Your task to perform on an android device: delete location history Image 0: 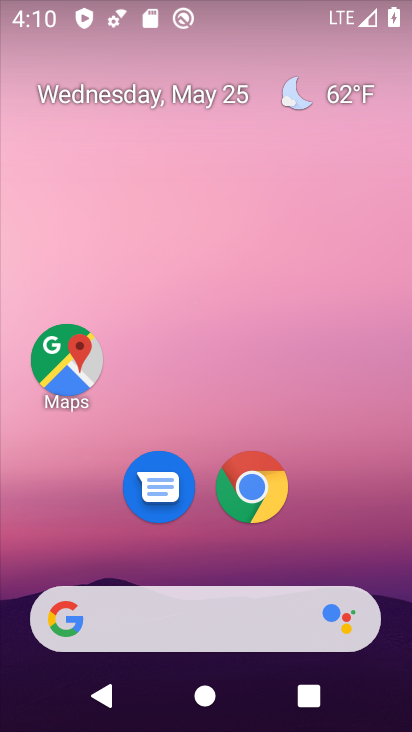
Step 0: drag from (351, 545) to (241, 3)
Your task to perform on an android device: delete location history Image 1: 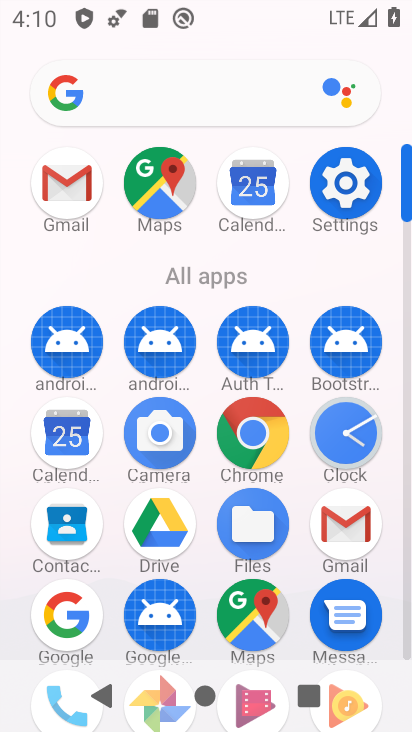
Step 1: click (171, 188)
Your task to perform on an android device: delete location history Image 2: 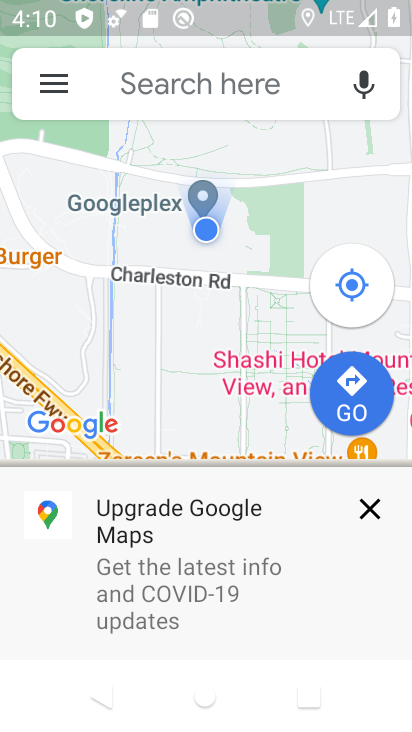
Step 2: click (86, 74)
Your task to perform on an android device: delete location history Image 3: 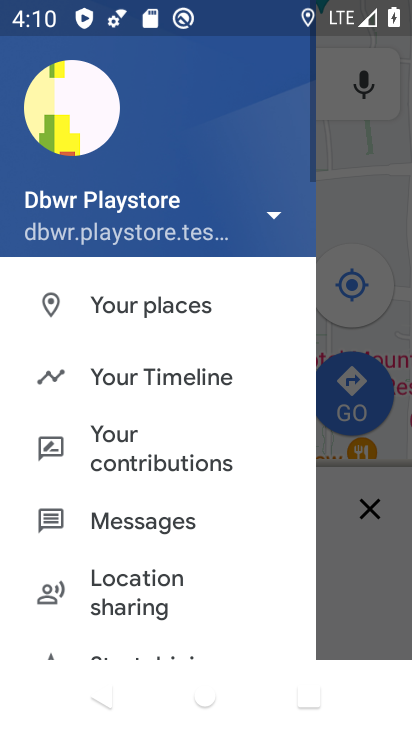
Step 3: drag from (199, 605) to (188, 250)
Your task to perform on an android device: delete location history Image 4: 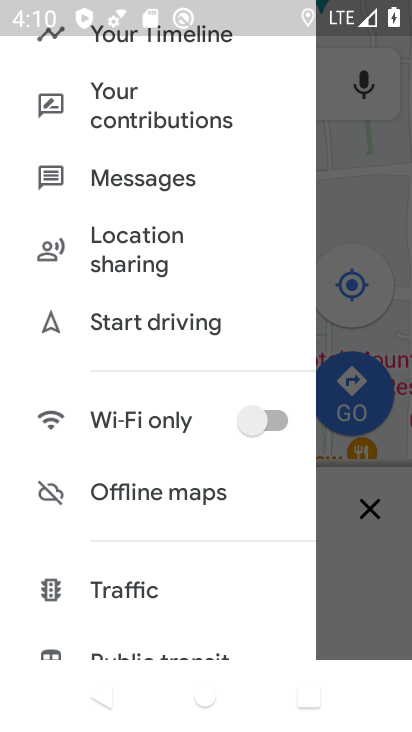
Step 4: drag from (190, 174) to (161, 438)
Your task to perform on an android device: delete location history Image 5: 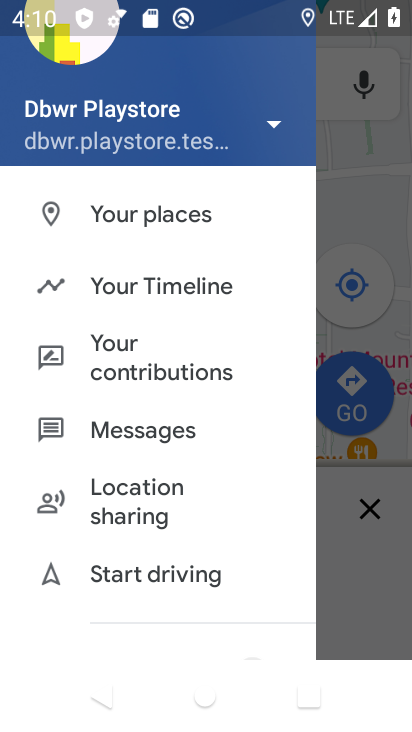
Step 5: click (156, 284)
Your task to perform on an android device: delete location history Image 6: 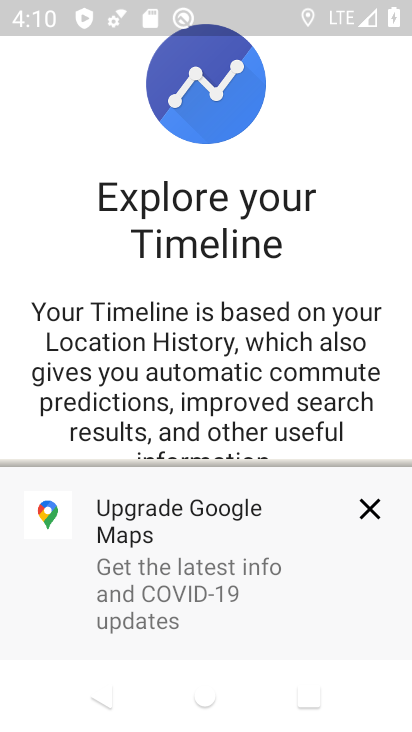
Step 6: click (377, 507)
Your task to perform on an android device: delete location history Image 7: 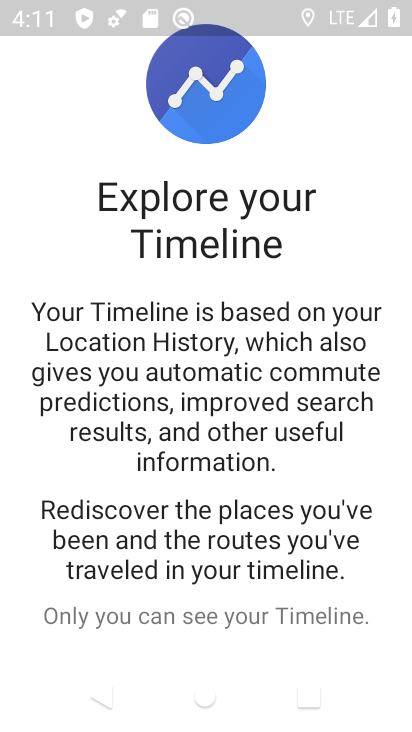
Step 7: drag from (250, 605) to (239, 242)
Your task to perform on an android device: delete location history Image 8: 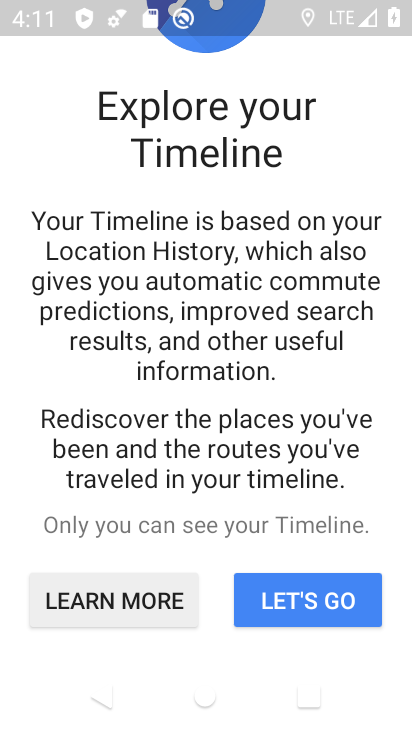
Step 8: click (320, 595)
Your task to perform on an android device: delete location history Image 9: 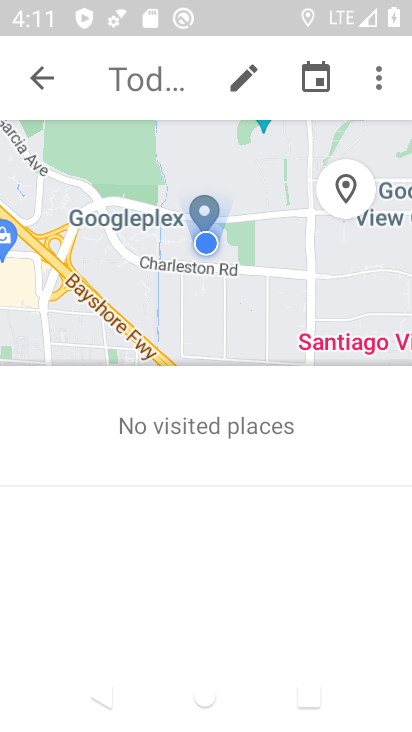
Step 9: click (396, 74)
Your task to perform on an android device: delete location history Image 10: 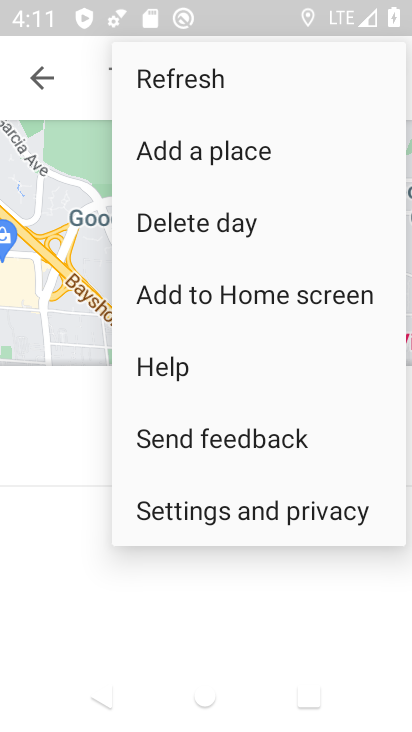
Step 10: click (226, 224)
Your task to perform on an android device: delete location history Image 11: 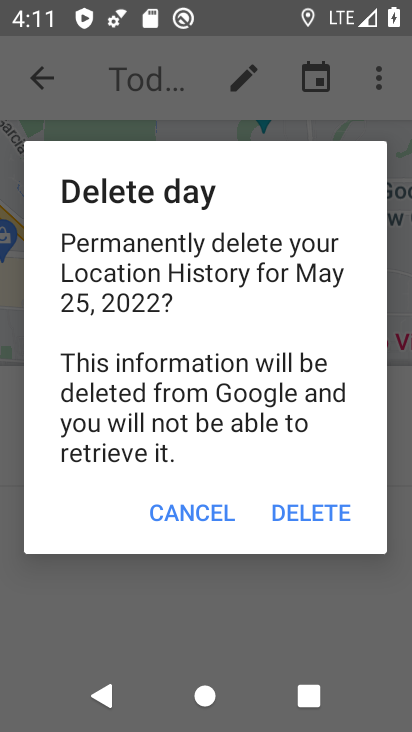
Step 11: click (324, 516)
Your task to perform on an android device: delete location history Image 12: 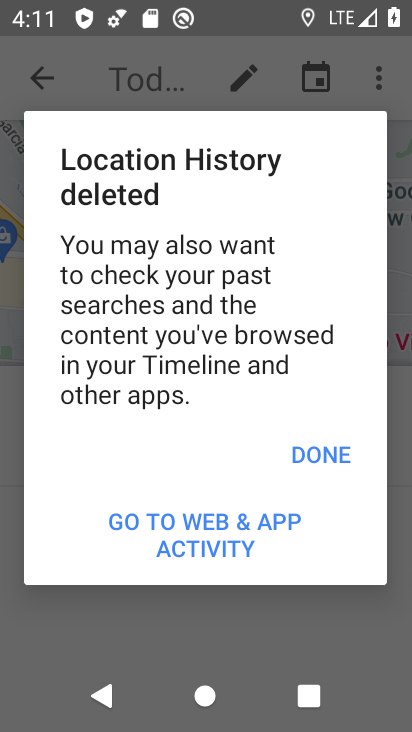
Step 12: click (334, 449)
Your task to perform on an android device: delete location history Image 13: 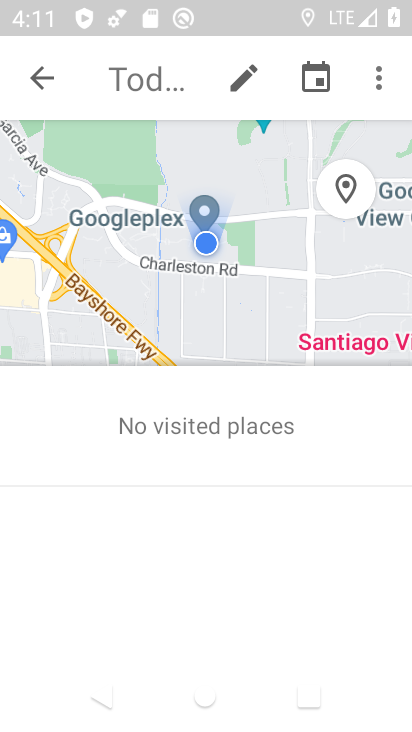
Step 13: task complete